Your task to perform on an android device: clear all cookies in the chrome app Image 0: 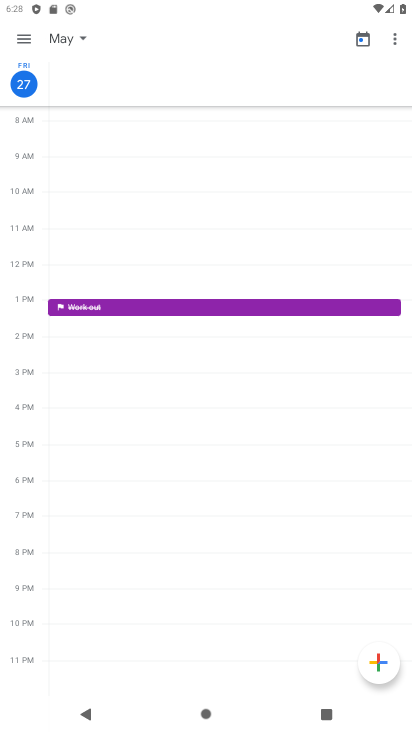
Step 0: press home button
Your task to perform on an android device: clear all cookies in the chrome app Image 1: 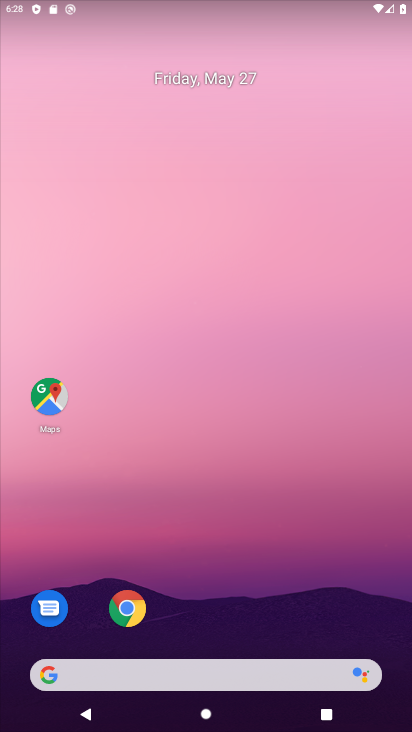
Step 1: click (124, 601)
Your task to perform on an android device: clear all cookies in the chrome app Image 2: 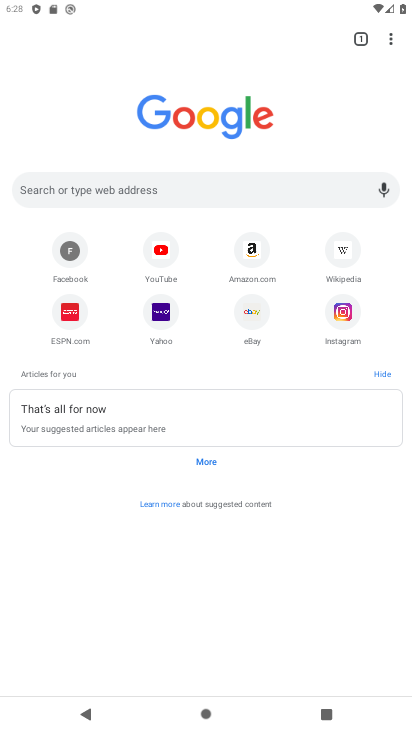
Step 2: click (393, 38)
Your task to perform on an android device: clear all cookies in the chrome app Image 3: 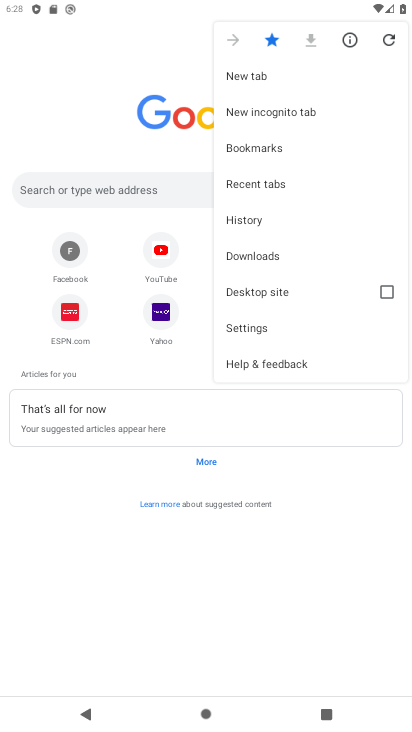
Step 3: click (275, 214)
Your task to perform on an android device: clear all cookies in the chrome app Image 4: 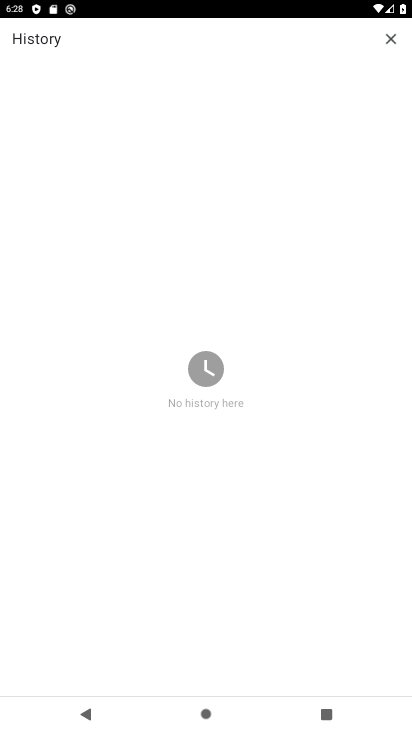
Step 4: task complete